Your task to perform on an android device: open sync settings in chrome Image 0: 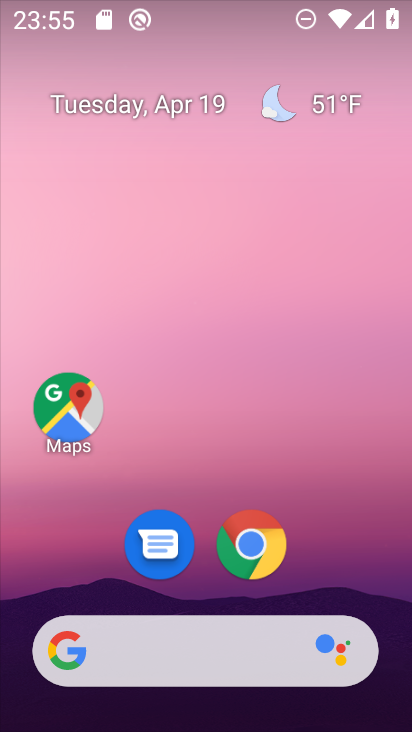
Step 0: drag from (315, 460) to (285, 87)
Your task to perform on an android device: open sync settings in chrome Image 1: 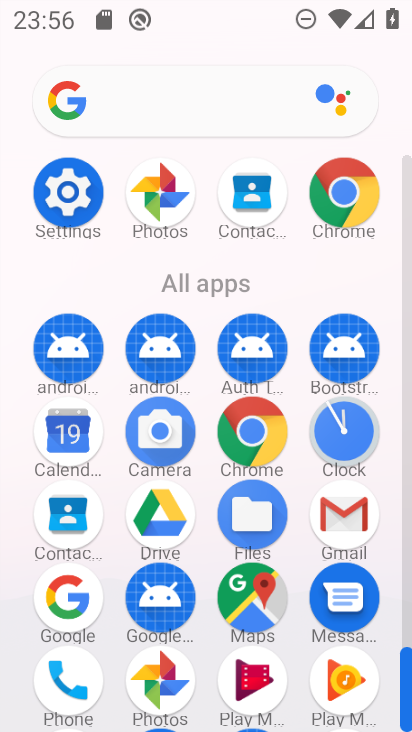
Step 1: click (352, 197)
Your task to perform on an android device: open sync settings in chrome Image 2: 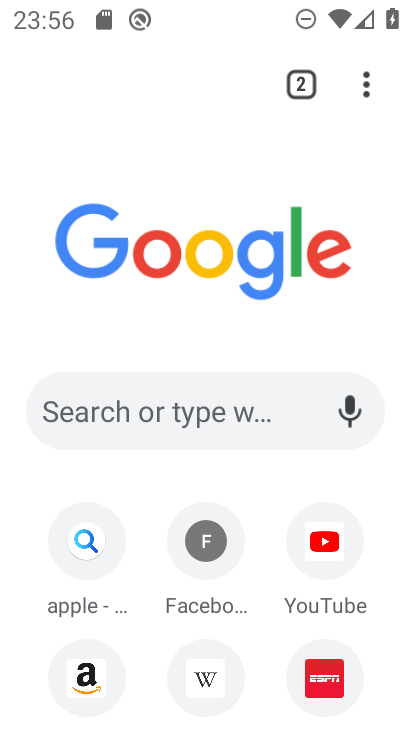
Step 2: click (360, 80)
Your task to perform on an android device: open sync settings in chrome Image 3: 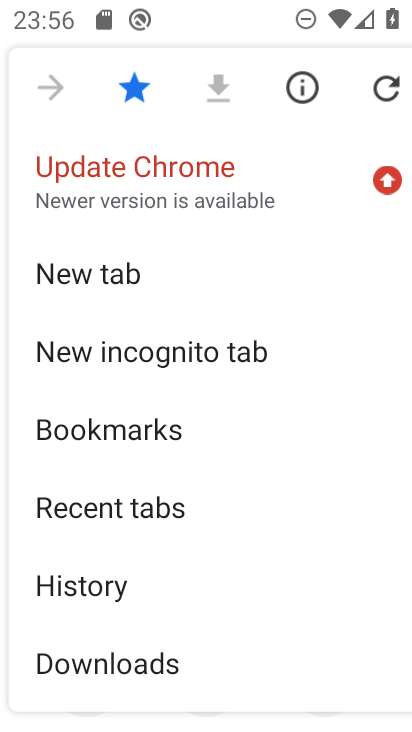
Step 3: drag from (314, 570) to (341, 420)
Your task to perform on an android device: open sync settings in chrome Image 4: 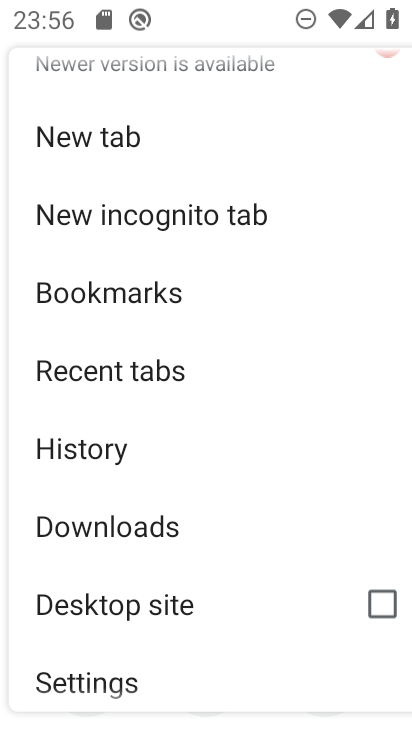
Step 4: drag from (300, 541) to (220, 324)
Your task to perform on an android device: open sync settings in chrome Image 5: 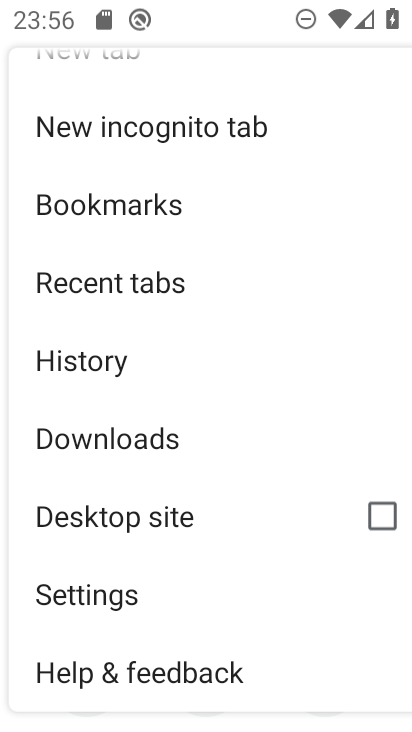
Step 5: click (142, 600)
Your task to perform on an android device: open sync settings in chrome Image 6: 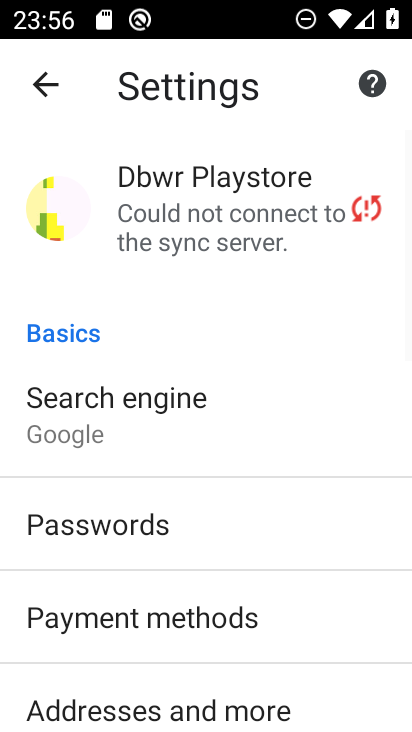
Step 6: drag from (324, 622) to (341, 508)
Your task to perform on an android device: open sync settings in chrome Image 7: 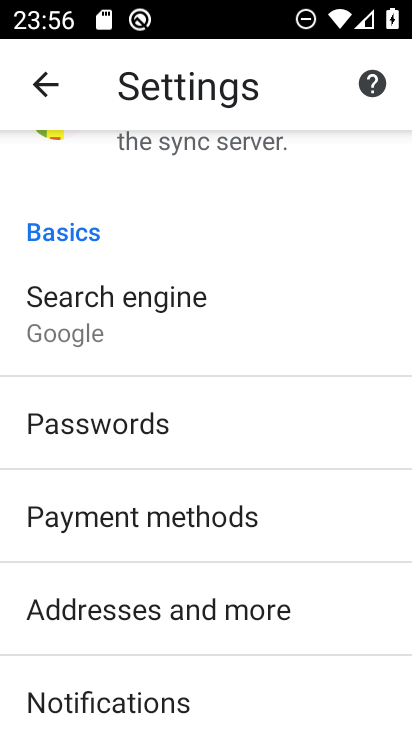
Step 7: drag from (363, 612) to (370, 484)
Your task to perform on an android device: open sync settings in chrome Image 8: 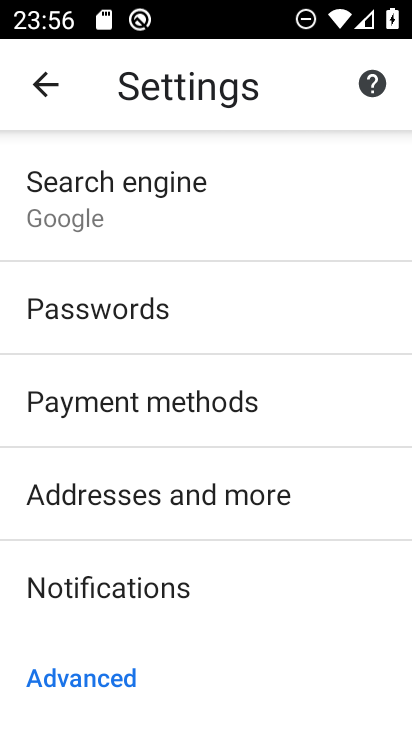
Step 8: drag from (340, 616) to (343, 492)
Your task to perform on an android device: open sync settings in chrome Image 9: 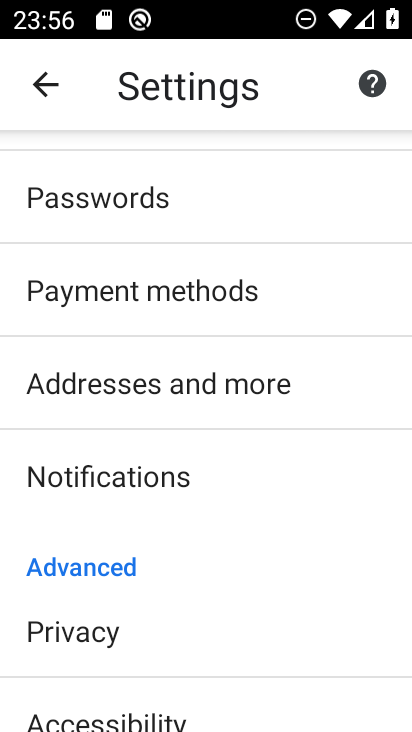
Step 9: drag from (345, 587) to (343, 465)
Your task to perform on an android device: open sync settings in chrome Image 10: 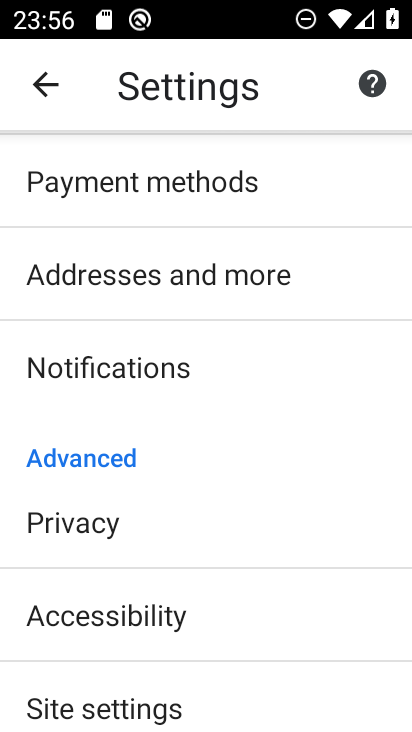
Step 10: drag from (312, 618) to (321, 502)
Your task to perform on an android device: open sync settings in chrome Image 11: 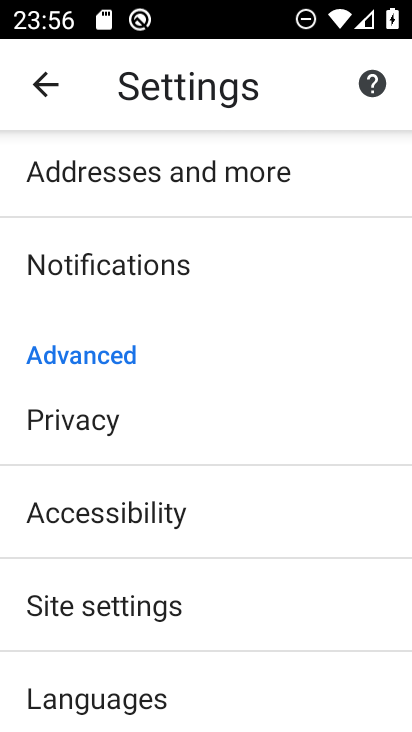
Step 11: drag from (311, 616) to (291, 503)
Your task to perform on an android device: open sync settings in chrome Image 12: 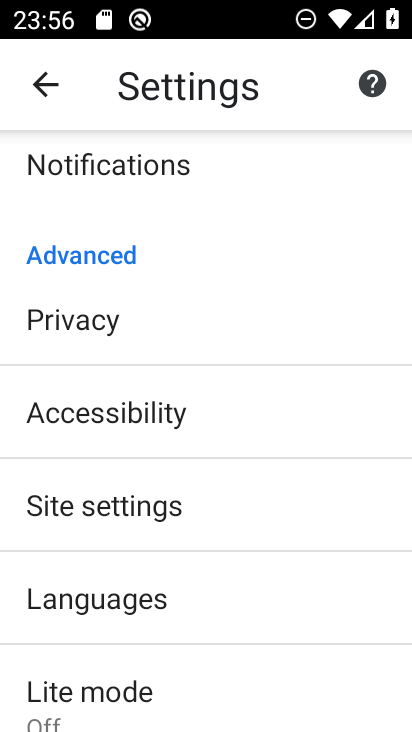
Step 12: drag from (334, 610) to (358, 493)
Your task to perform on an android device: open sync settings in chrome Image 13: 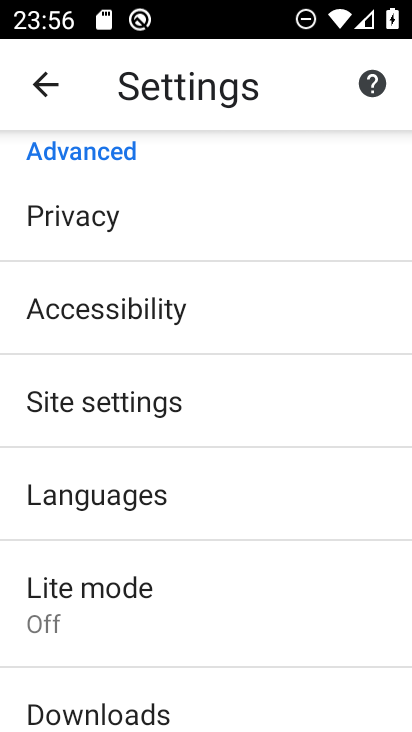
Step 13: drag from (346, 622) to (312, 484)
Your task to perform on an android device: open sync settings in chrome Image 14: 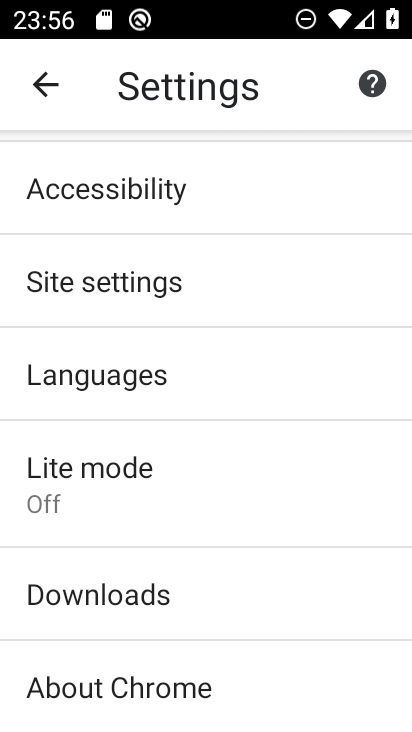
Step 14: drag from (344, 601) to (314, 497)
Your task to perform on an android device: open sync settings in chrome Image 15: 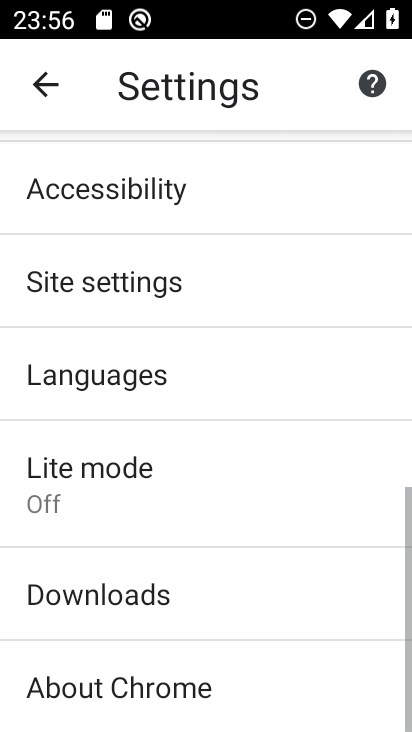
Step 15: drag from (310, 369) to (351, 525)
Your task to perform on an android device: open sync settings in chrome Image 16: 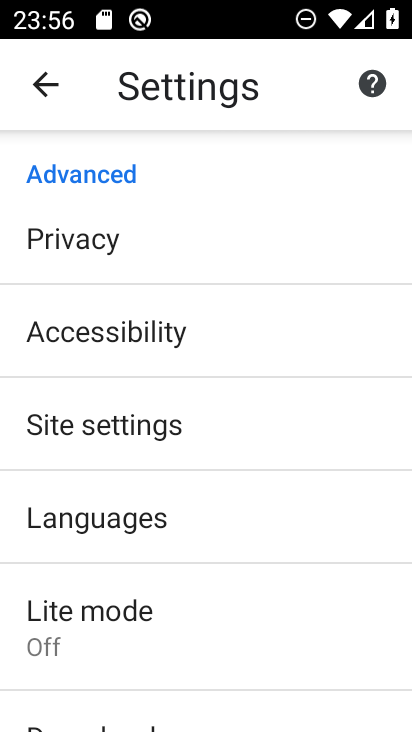
Step 16: click (291, 422)
Your task to perform on an android device: open sync settings in chrome Image 17: 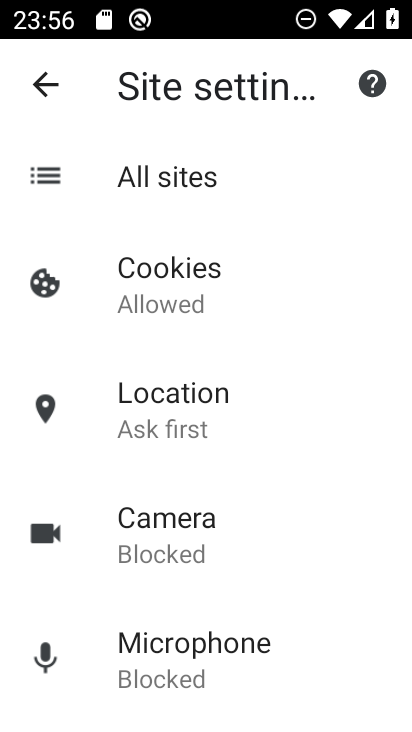
Step 17: drag from (321, 592) to (303, 439)
Your task to perform on an android device: open sync settings in chrome Image 18: 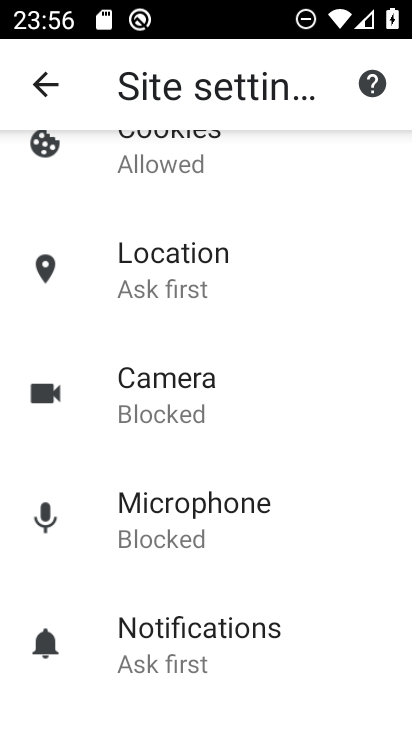
Step 18: drag from (309, 633) to (328, 479)
Your task to perform on an android device: open sync settings in chrome Image 19: 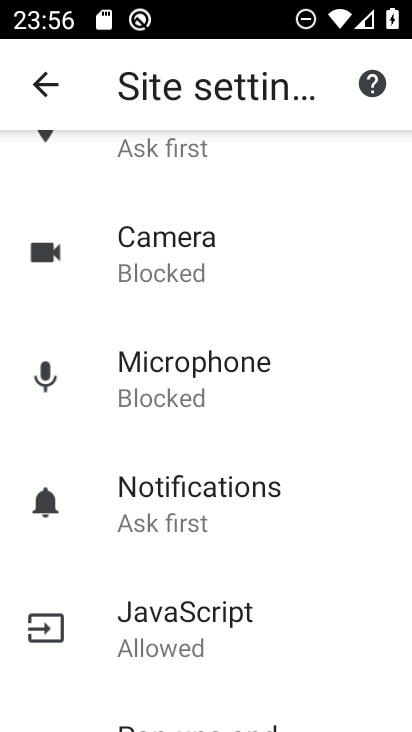
Step 19: drag from (332, 643) to (326, 471)
Your task to perform on an android device: open sync settings in chrome Image 20: 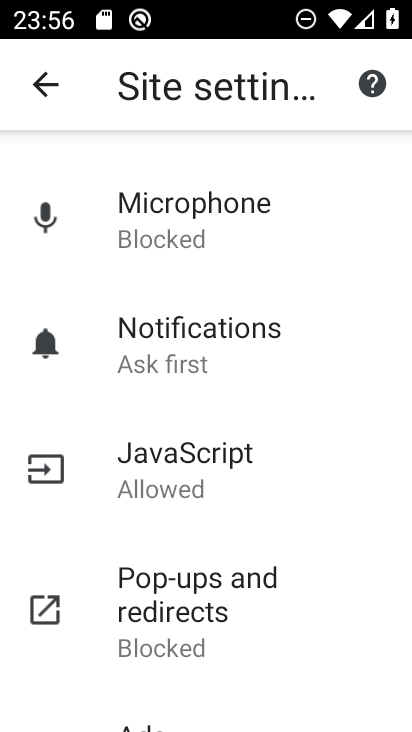
Step 20: drag from (342, 628) to (316, 484)
Your task to perform on an android device: open sync settings in chrome Image 21: 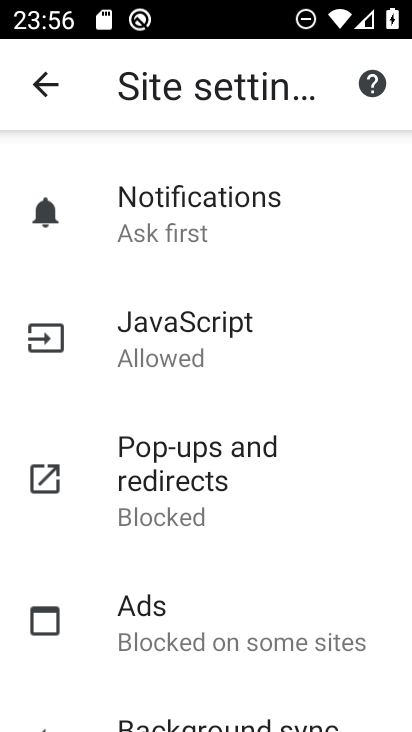
Step 21: drag from (329, 663) to (356, 510)
Your task to perform on an android device: open sync settings in chrome Image 22: 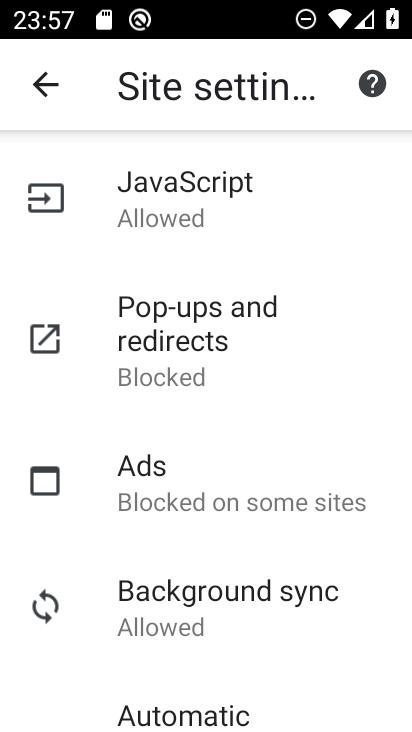
Step 22: click (279, 594)
Your task to perform on an android device: open sync settings in chrome Image 23: 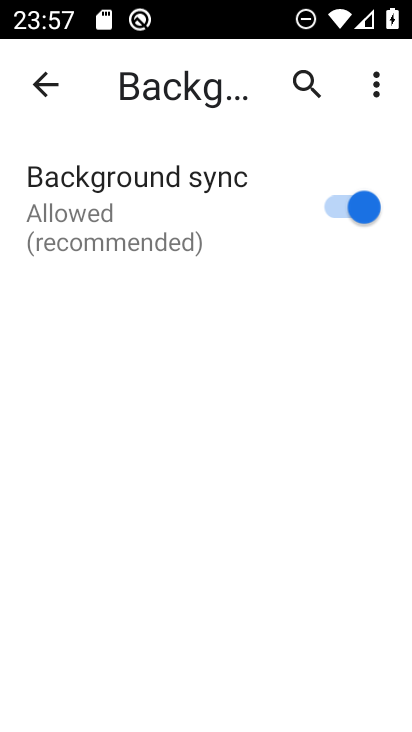
Step 23: task complete